Your task to perform on an android device: Go to battery settings Image 0: 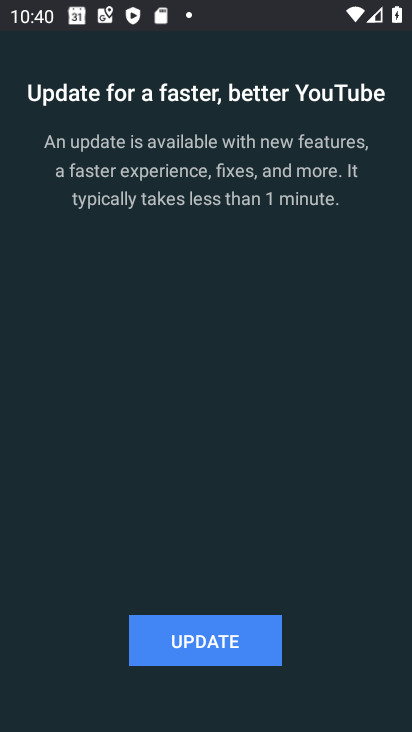
Step 0: press home button
Your task to perform on an android device: Go to battery settings Image 1: 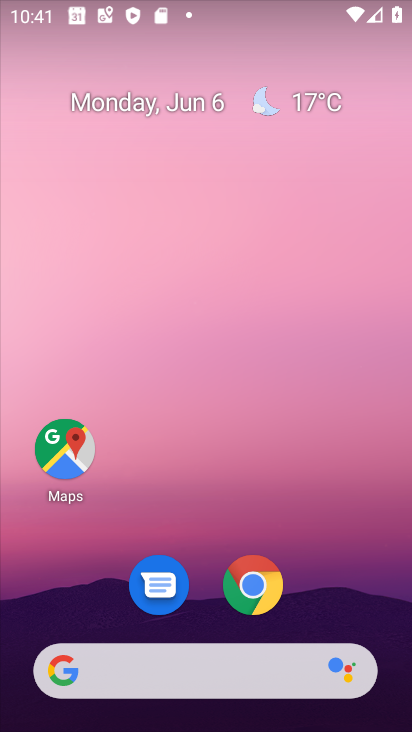
Step 1: drag from (237, 484) to (258, 6)
Your task to perform on an android device: Go to battery settings Image 2: 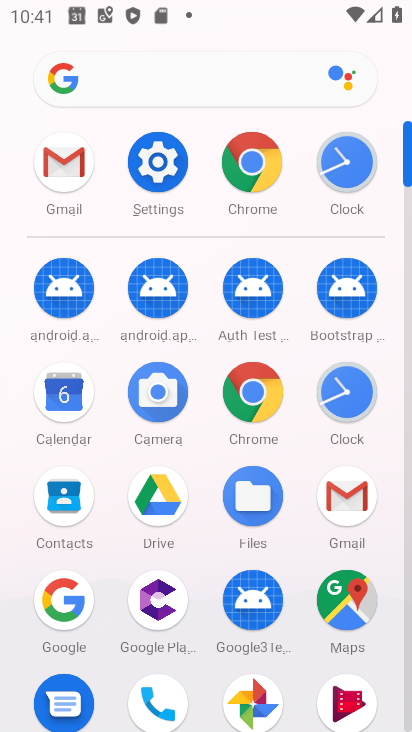
Step 2: click (166, 164)
Your task to perform on an android device: Go to battery settings Image 3: 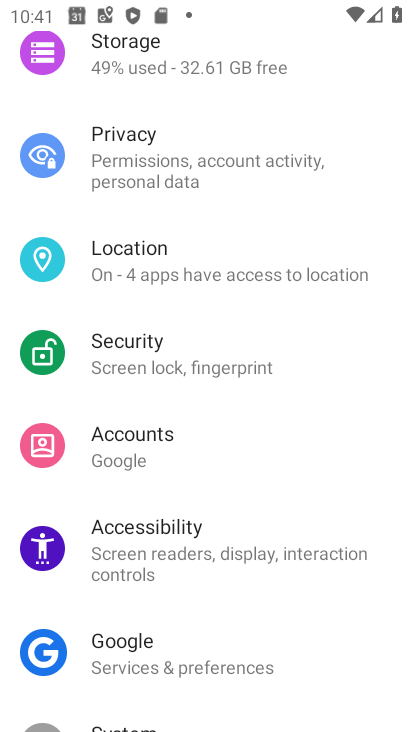
Step 3: drag from (228, 213) to (188, 622)
Your task to perform on an android device: Go to battery settings Image 4: 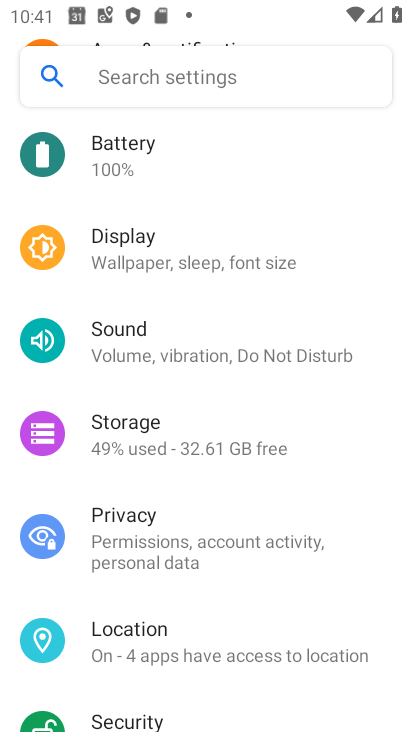
Step 4: click (175, 151)
Your task to perform on an android device: Go to battery settings Image 5: 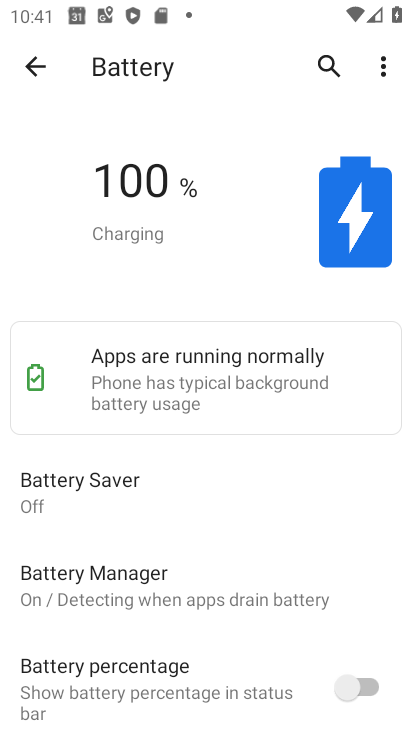
Step 5: task complete